Your task to perform on an android device: toggle notification dots Image 0: 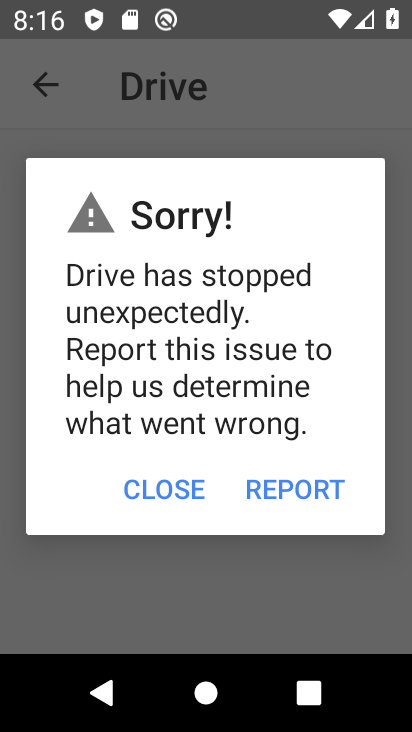
Step 0: press home button
Your task to perform on an android device: toggle notification dots Image 1: 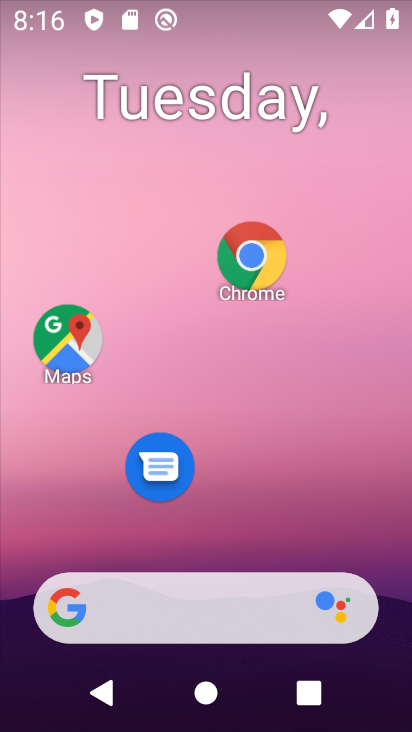
Step 1: drag from (263, 504) to (262, 123)
Your task to perform on an android device: toggle notification dots Image 2: 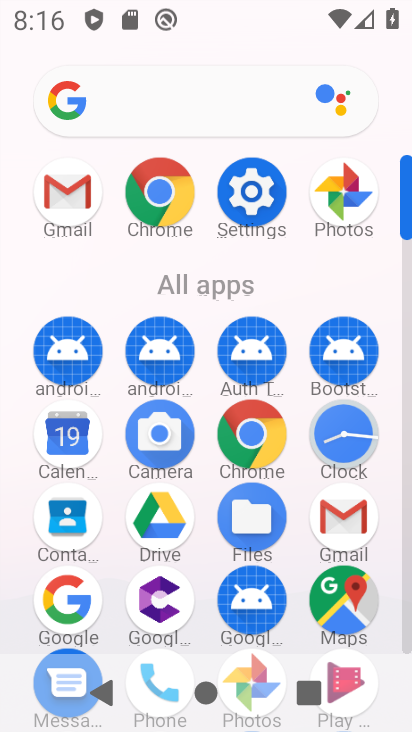
Step 2: click (252, 189)
Your task to perform on an android device: toggle notification dots Image 3: 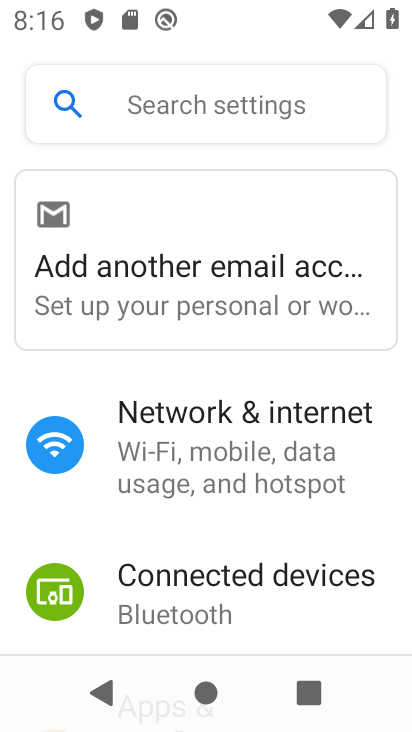
Step 3: drag from (295, 604) to (274, 246)
Your task to perform on an android device: toggle notification dots Image 4: 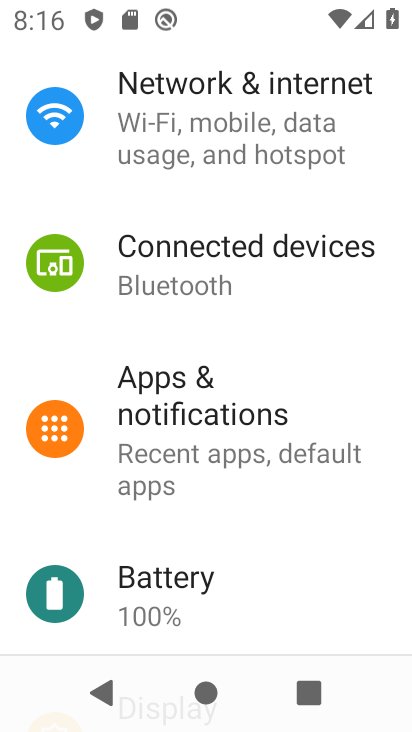
Step 4: click (204, 414)
Your task to perform on an android device: toggle notification dots Image 5: 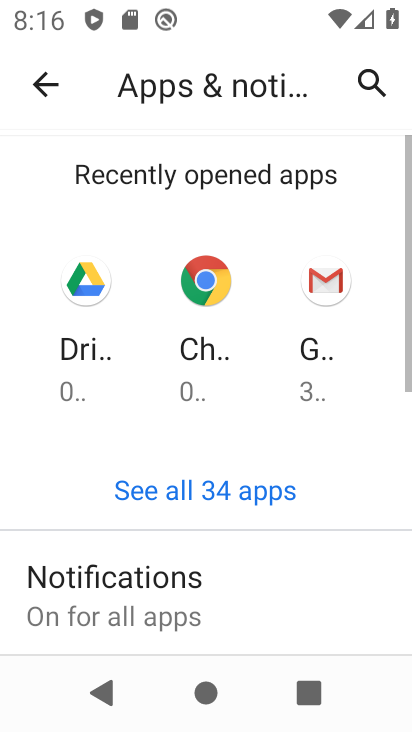
Step 5: click (132, 598)
Your task to perform on an android device: toggle notification dots Image 6: 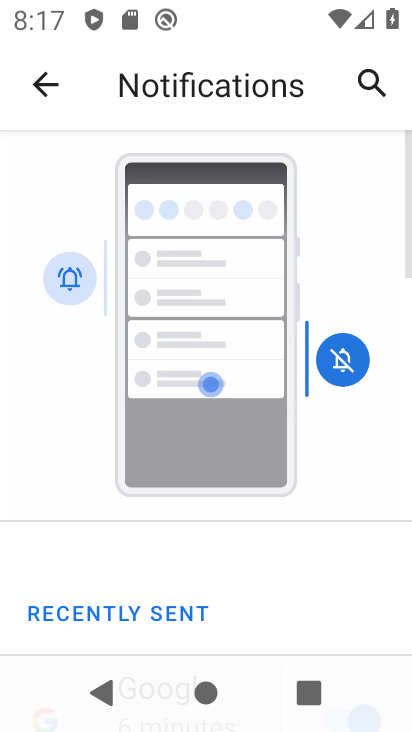
Step 6: drag from (287, 501) to (321, 116)
Your task to perform on an android device: toggle notification dots Image 7: 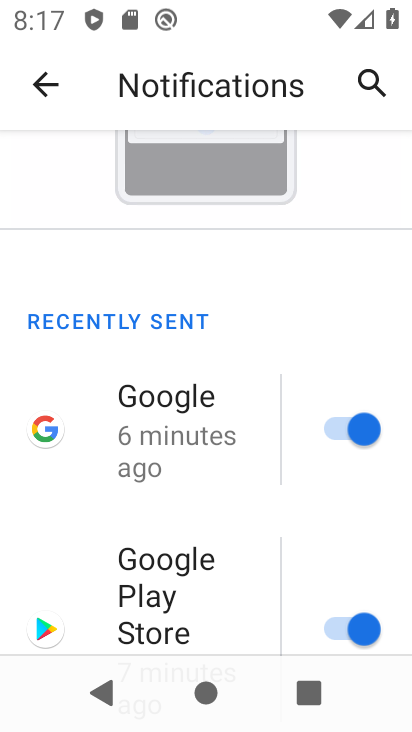
Step 7: drag from (254, 616) to (263, 168)
Your task to perform on an android device: toggle notification dots Image 8: 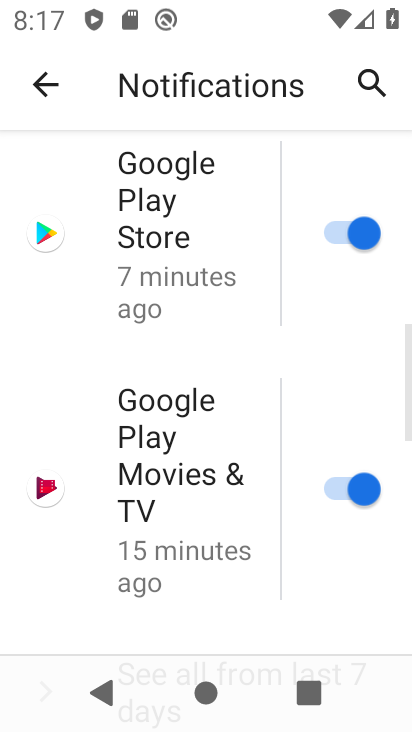
Step 8: drag from (252, 576) to (260, 196)
Your task to perform on an android device: toggle notification dots Image 9: 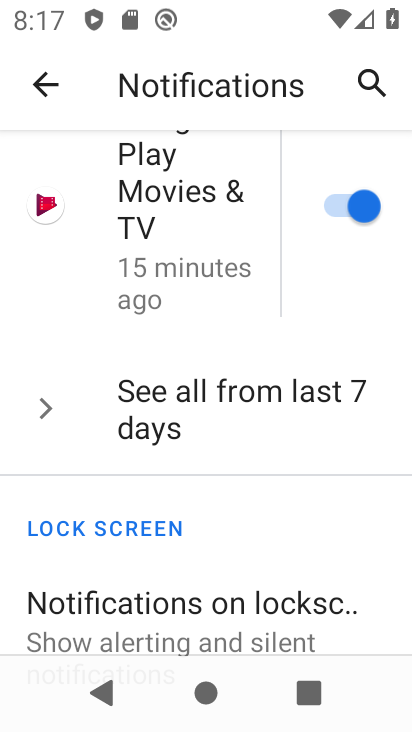
Step 9: drag from (245, 608) to (248, 167)
Your task to perform on an android device: toggle notification dots Image 10: 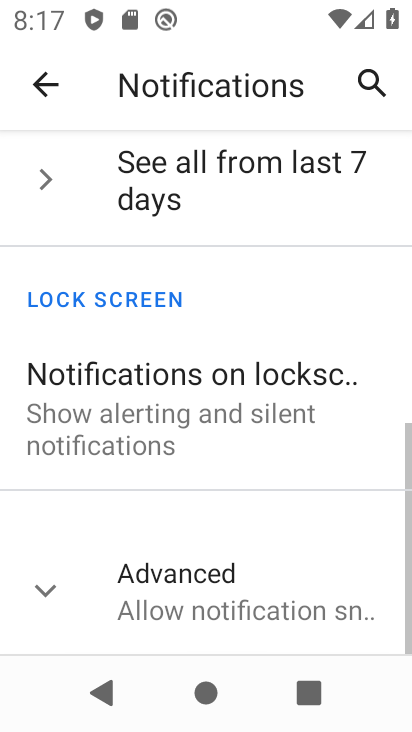
Step 10: click (179, 602)
Your task to perform on an android device: toggle notification dots Image 11: 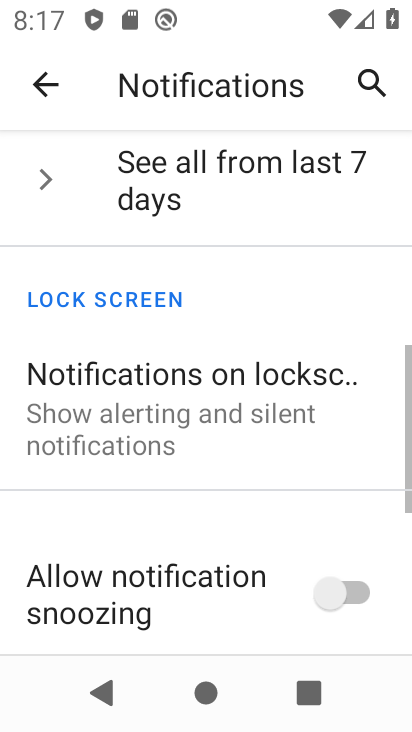
Step 11: drag from (179, 602) to (209, 275)
Your task to perform on an android device: toggle notification dots Image 12: 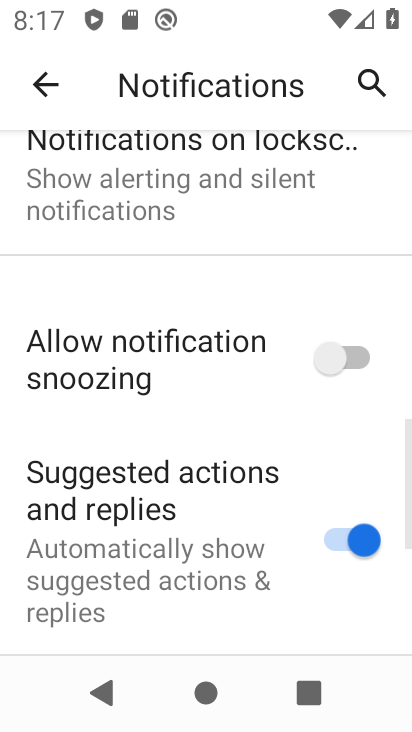
Step 12: drag from (204, 597) to (182, 308)
Your task to perform on an android device: toggle notification dots Image 13: 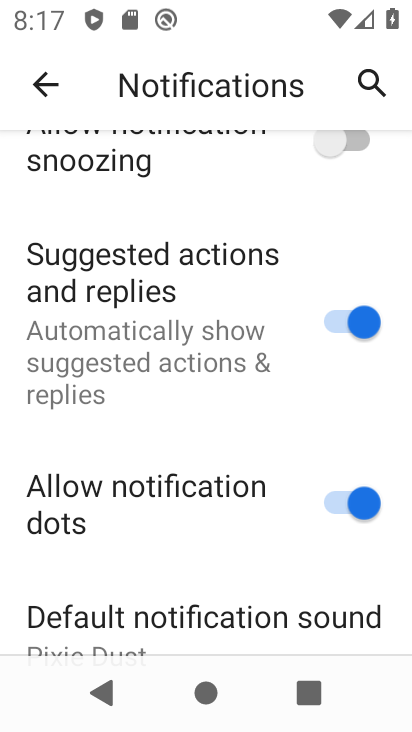
Step 13: click (345, 507)
Your task to perform on an android device: toggle notification dots Image 14: 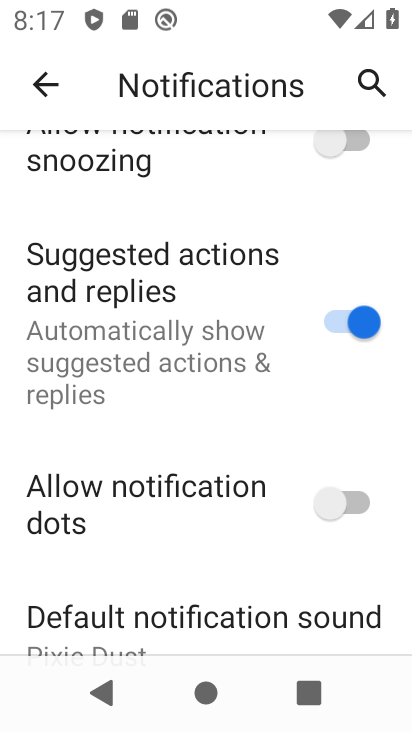
Step 14: task complete